Your task to perform on an android device: Turn off the flashlight Image 0: 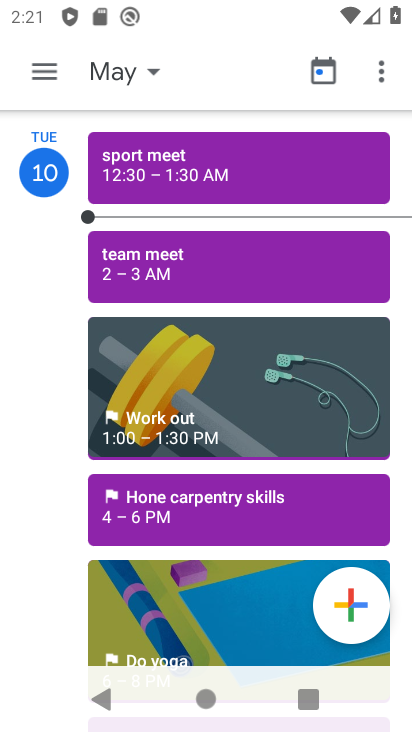
Step 0: press home button
Your task to perform on an android device: Turn off the flashlight Image 1: 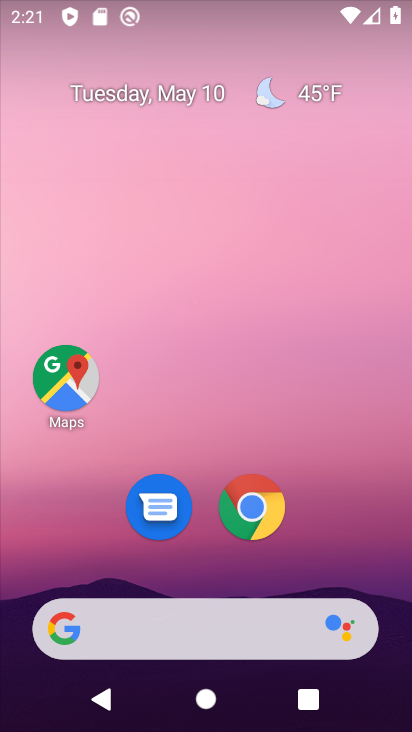
Step 1: click (251, 468)
Your task to perform on an android device: Turn off the flashlight Image 2: 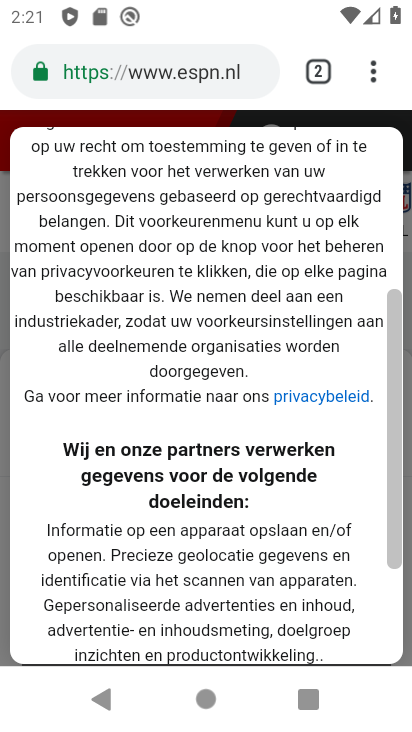
Step 2: drag from (207, 0) to (230, 495)
Your task to perform on an android device: Turn off the flashlight Image 3: 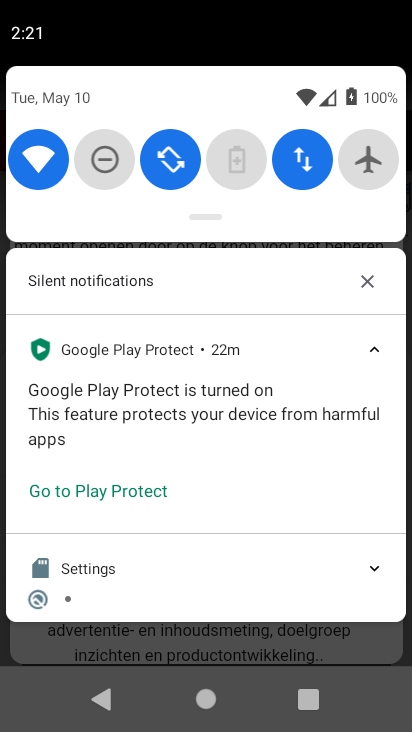
Step 3: drag from (209, 192) to (243, 524)
Your task to perform on an android device: Turn off the flashlight Image 4: 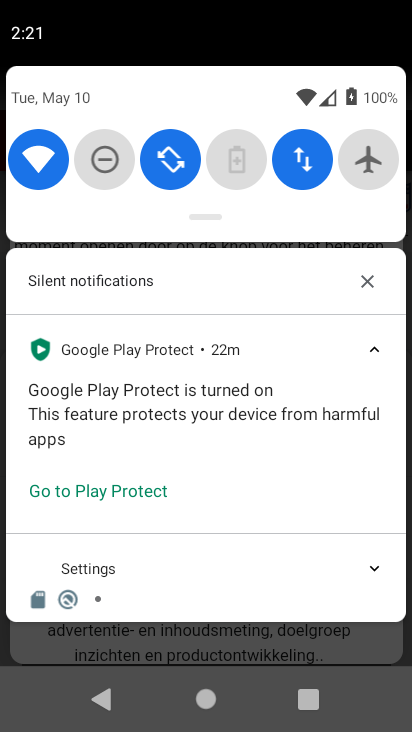
Step 4: drag from (302, 176) to (307, 608)
Your task to perform on an android device: Turn off the flashlight Image 5: 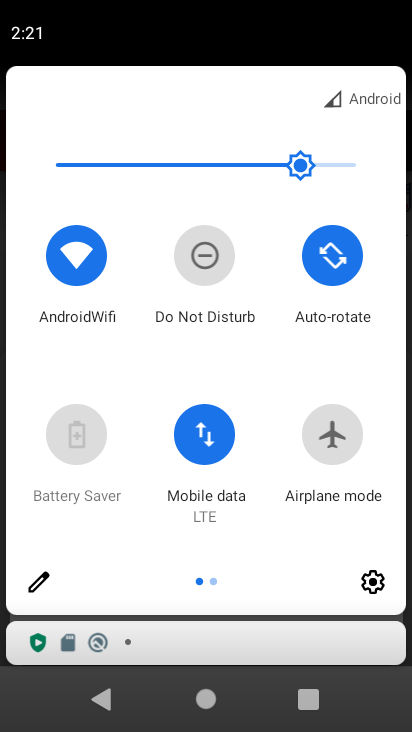
Step 5: drag from (372, 469) to (0, 542)
Your task to perform on an android device: Turn off the flashlight Image 6: 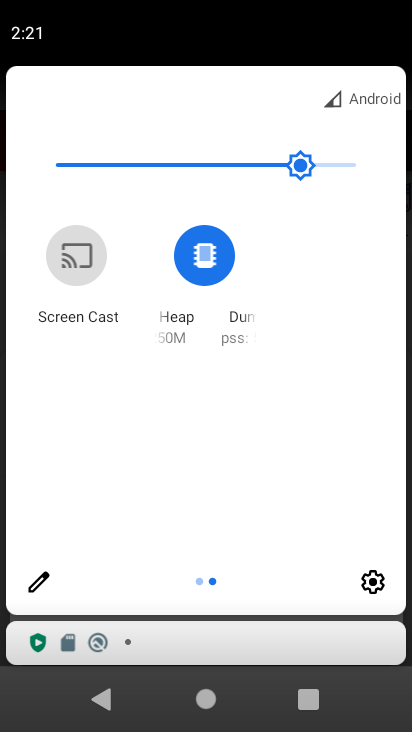
Step 6: click (36, 582)
Your task to perform on an android device: Turn off the flashlight Image 7: 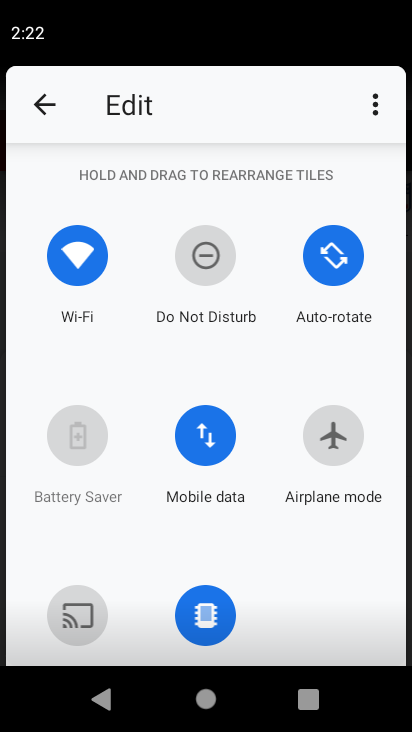
Step 7: task complete